Your task to perform on an android device: Go to display settings Image 0: 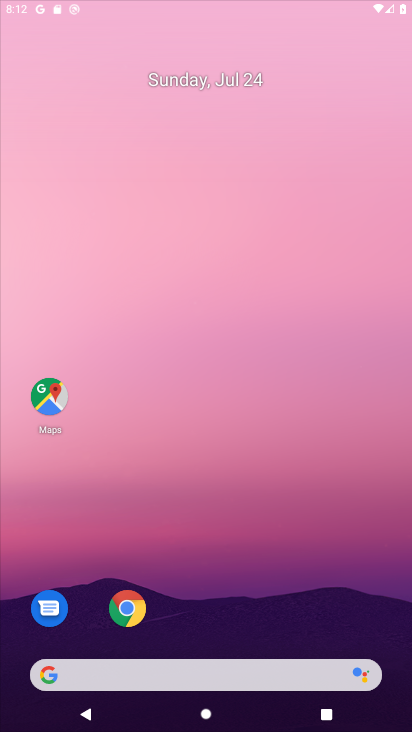
Step 0: drag from (299, 548) to (313, 196)
Your task to perform on an android device: Go to display settings Image 1: 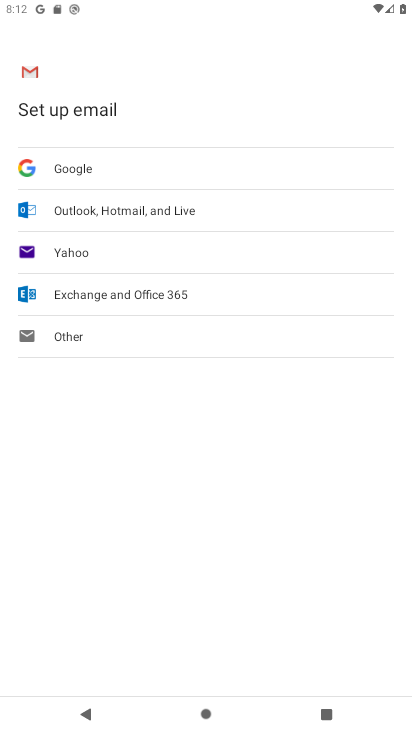
Step 1: press home button
Your task to perform on an android device: Go to display settings Image 2: 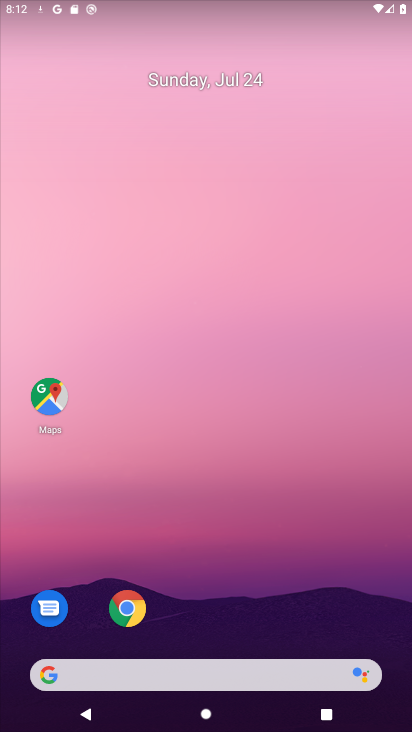
Step 2: drag from (230, 615) to (207, 77)
Your task to perform on an android device: Go to display settings Image 3: 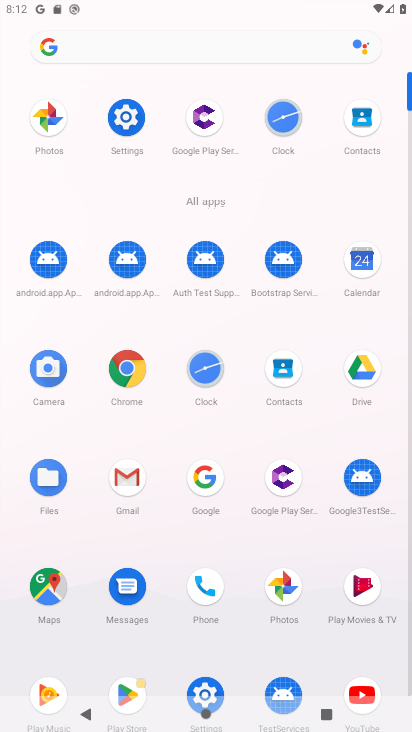
Step 3: click (131, 111)
Your task to perform on an android device: Go to display settings Image 4: 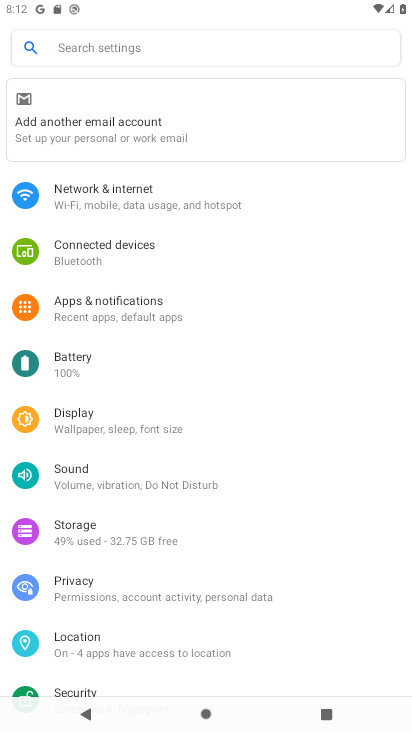
Step 4: click (90, 421)
Your task to perform on an android device: Go to display settings Image 5: 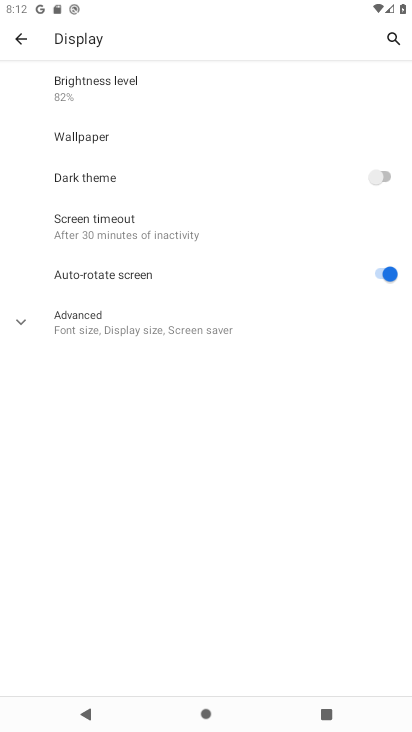
Step 5: task complete